Your task to perform on an android device: Open Maps and search for coffee Image 0: 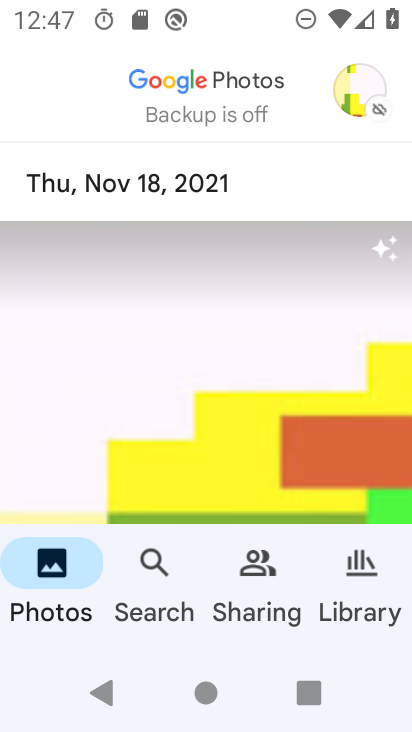
Step 0: press home button
Your task to perform on an android device: Open Maps and search for coffee Image 1: 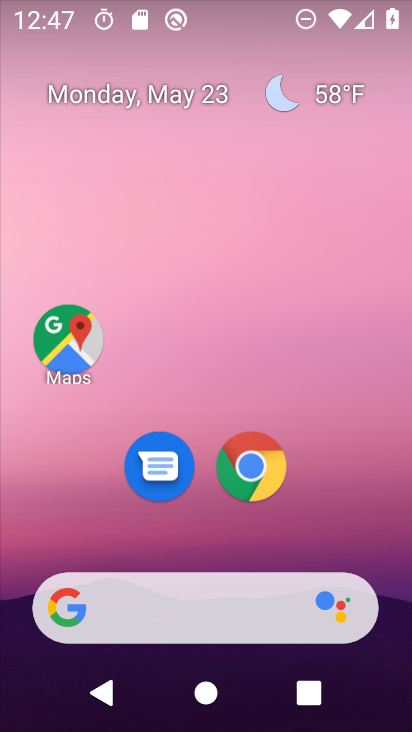
Step 1: click (72, 347)
Your task to perform on an android device: Open Maps and search for coffee Image 2: 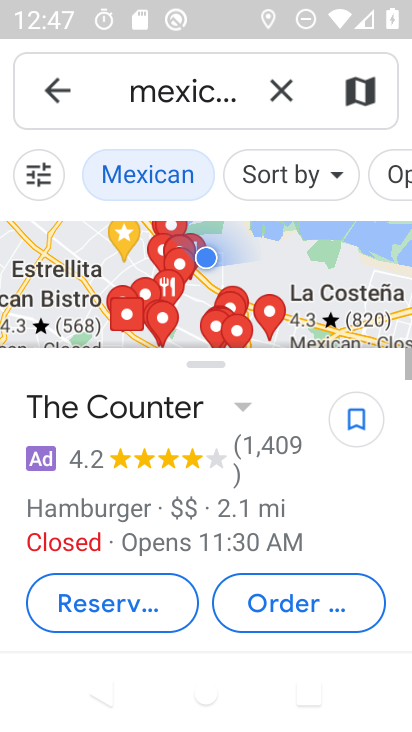
Step 2: click (286, 89)
Your task to perform on an android device: Open Maps and search for coffee Image 3: 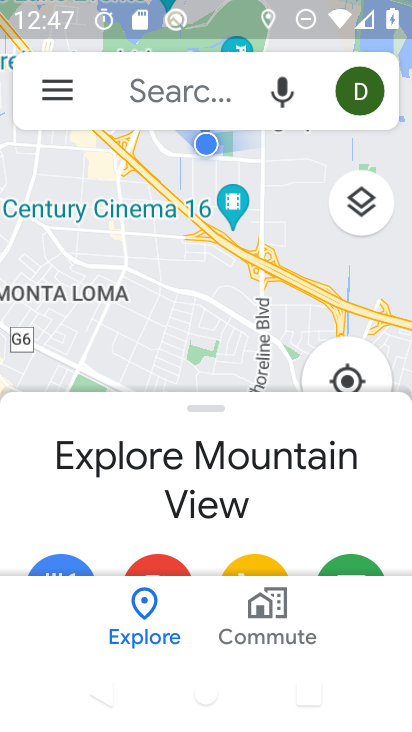
Step 3: click (163, 115)
Your task to perform on an android device: Open Maps and search for coffee Image 4: 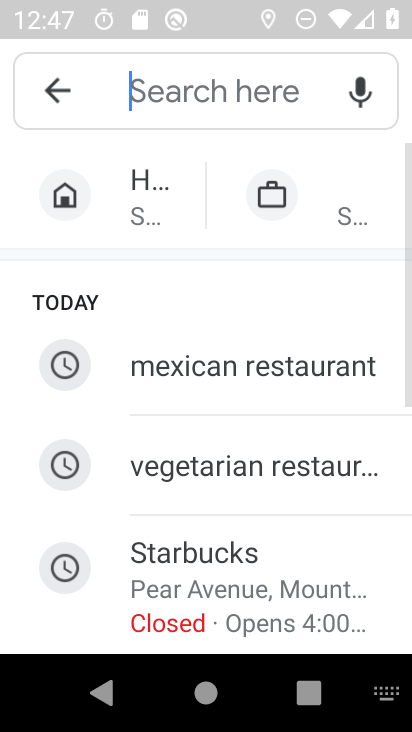
Step 4: drag from (253, 440) to (256, 139)
Your task to perform on an android device: Open Maps and search for coffee Image 5: 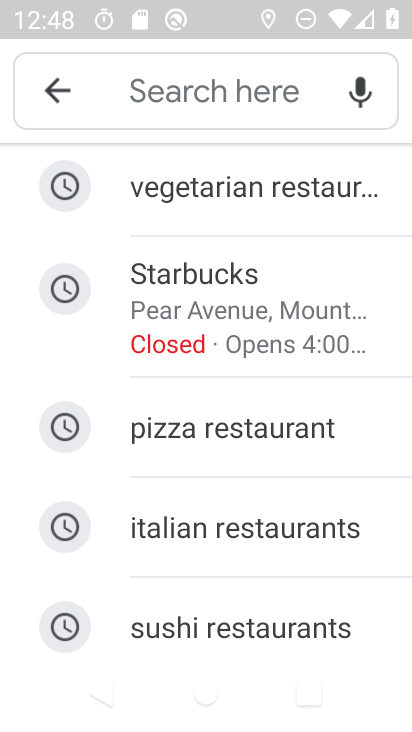
Step 5: drag from (215, 534) to (219, 459)
Your task to perform on an android device: Open Maps and search for coffee Image 6: 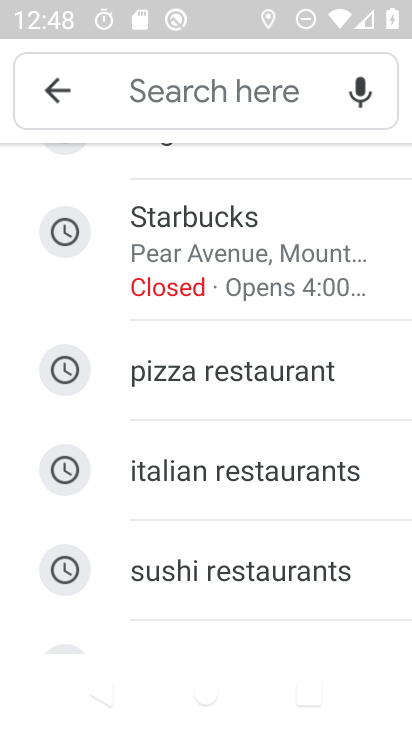
Step 6: drag from (227, 323) to (250, 545)
Your task to perform on an android device: Open Maps and search for coffee Image 7: 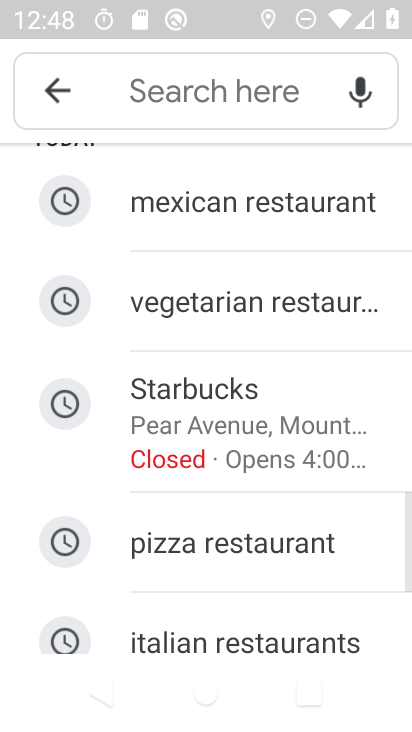
Step 7: click (194, 101)
Your task to perform on an android device: Open Maps and search for coffee Image 8: 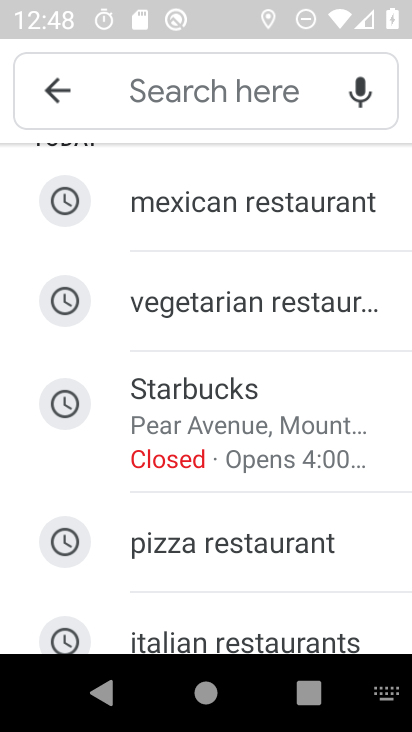
Step 8: type "coffee"
Your task to perform on an android device: Open Maps and search for coffee Image 9: 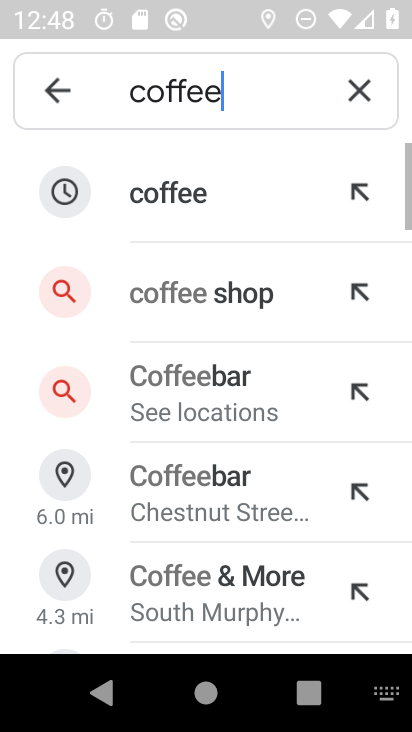
Step 9: click (251, 202)
Your task to perform on an android device: Open Maps and search for coffee Image 10: 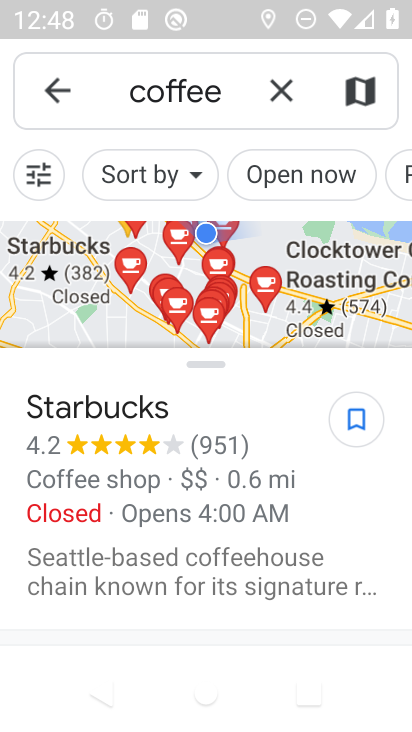
Step 10: task complete